Your task to perform on an android device: check the backup settings in the google photos Image 0: 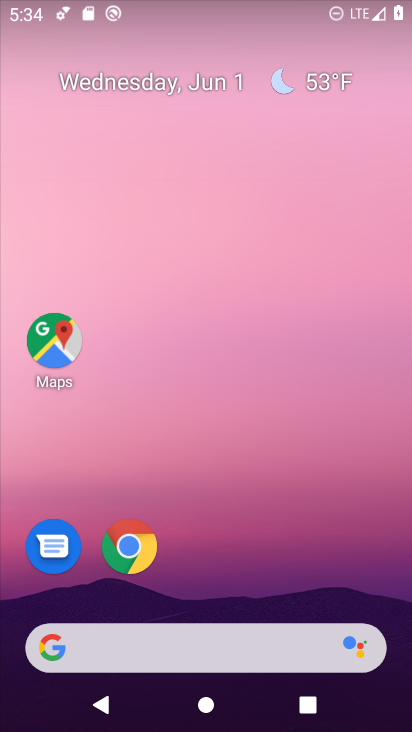
Step 0: drag from (260, 444) to (189, 35)
Your task to perform on an android device: check the backup settings in the google photos Image 1: 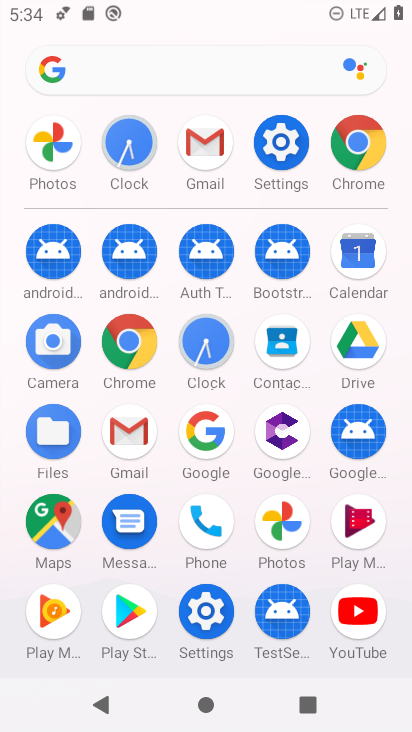
Step 1: drag from (0, 540) to (17, 201)
Your task to perform on an android device: check the backup settings in the google photos Image 2: 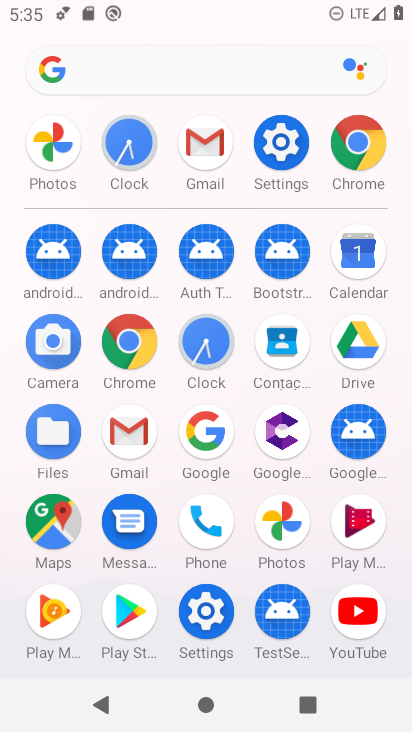
Step 2: click (287, 512)
Your task to perform on an android device: check the backup settings in the google photos Image 3: 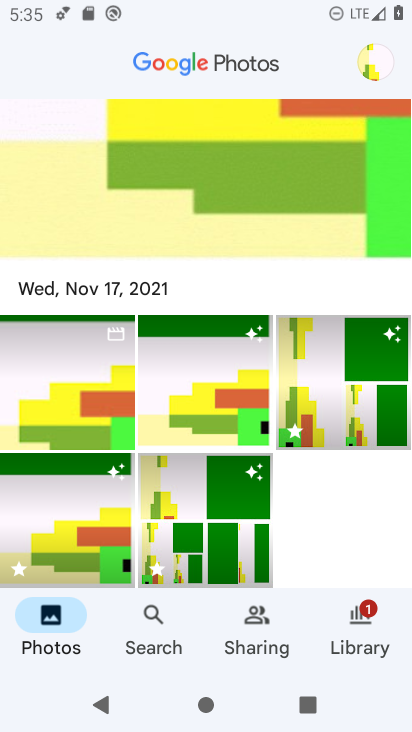
Step 3: click (378, 52)
Your task to perform on an android device: check the backup settings in the google photos Image 4: 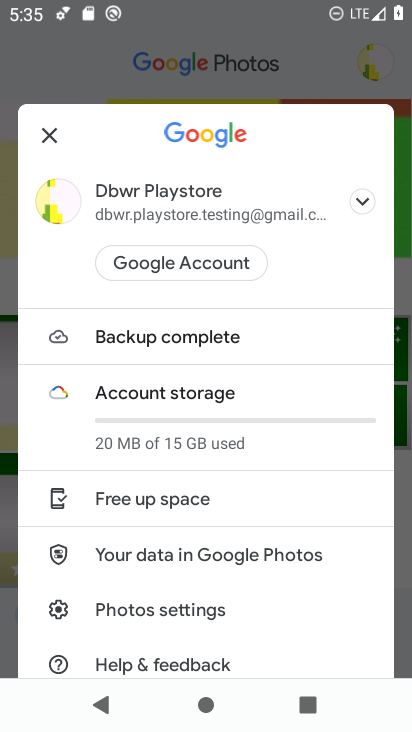
Step 4: click (160, 607)
Your task to perform on an android device: check the backup settings in the google photos Image 5: 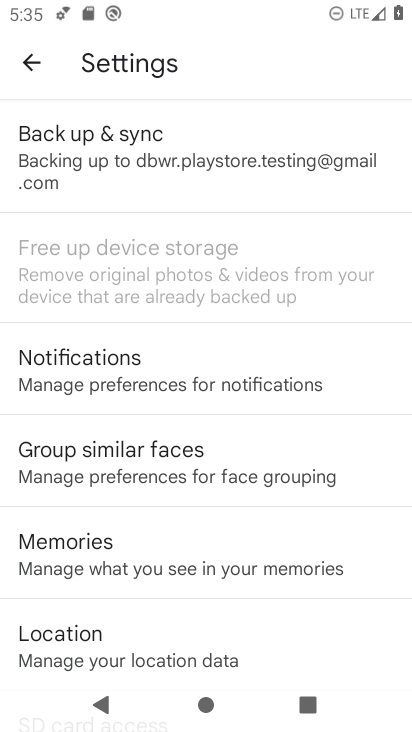
Step 5: click (171, 163)
Your task to perform on an android device: check the backup settings in the google photos Image 6: 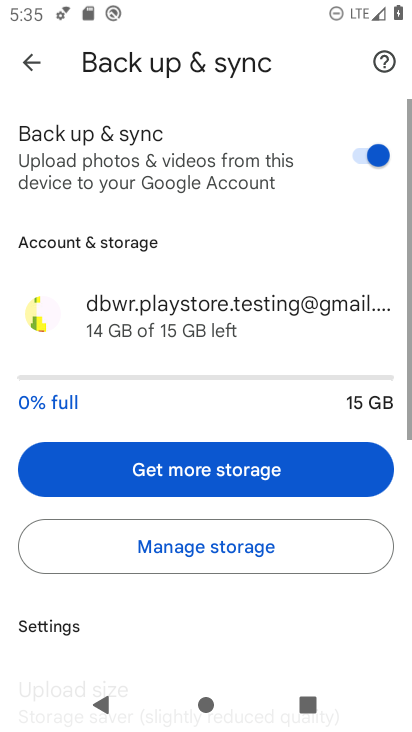
Step 6: task complete